Your task to perform on an android device: allow notifications from all sites in the chrome app Image 0: 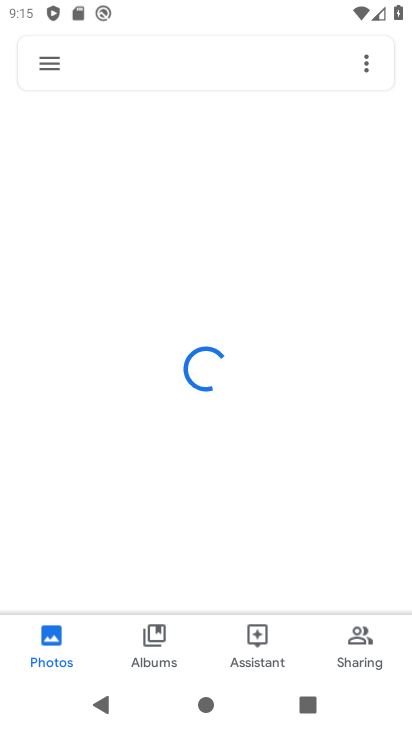
Step 0: press home button
Your task to perform on an android device: allow notifications from all sites in the chrome app Image 1: 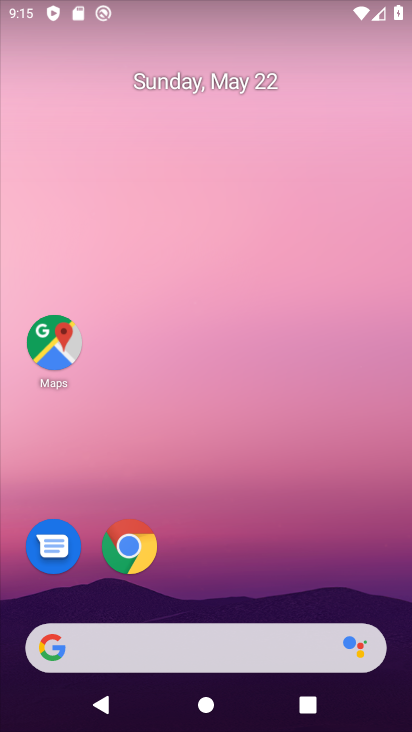
Step 1: click (159, 558)
Your task to perform on an android device: allow notifications from all sites in the chrome app Image 2: 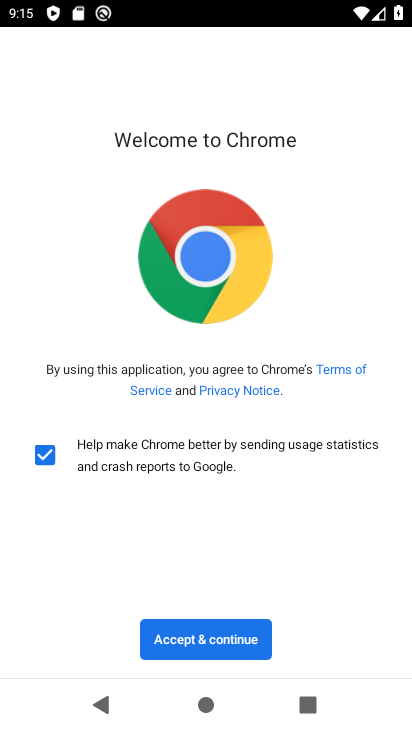
Step 2: click (218, 629)
Your task to perform on an android device: allow notifications from all sites in the chrome app Image 3: 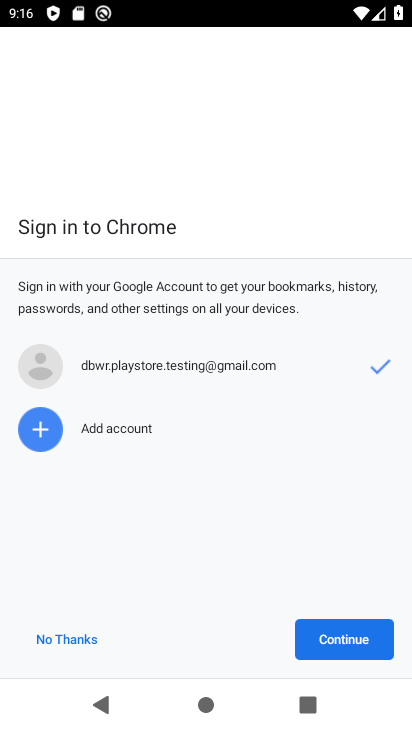
Step 3: click (347, 646)
Your task to perform on an android device: allow notifications from all sites in the chrome app Image 4: 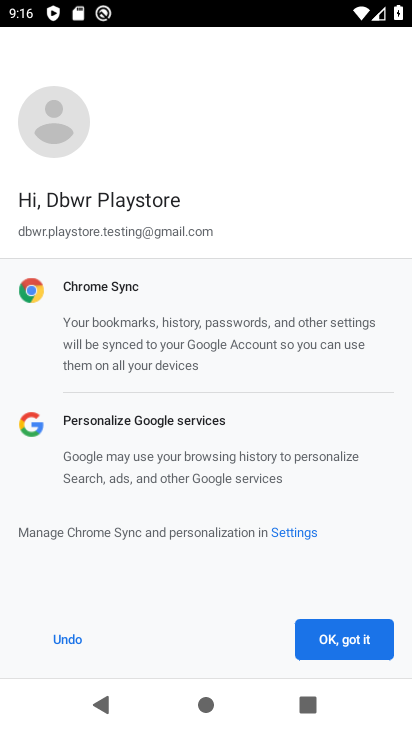
Step 4: click (323, 641)
Your task to perform on an android device: allow notifications from all sites in the chrome app Image 5: 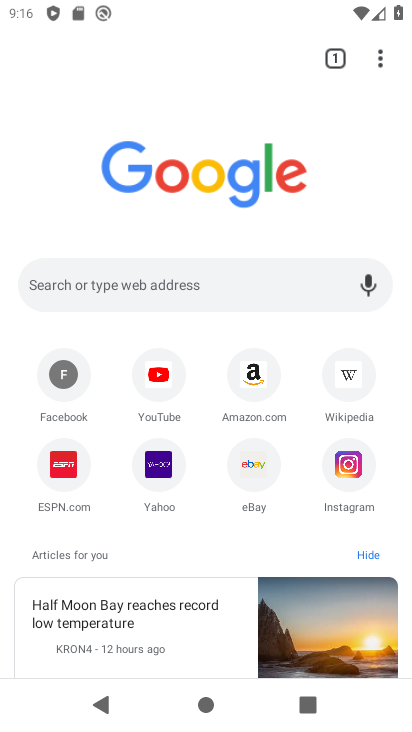
Step 5: drag from (378, 57) to (217, 502)
Your task to perform on an android device: allow notifications from all sites in the chrome app Image 6: 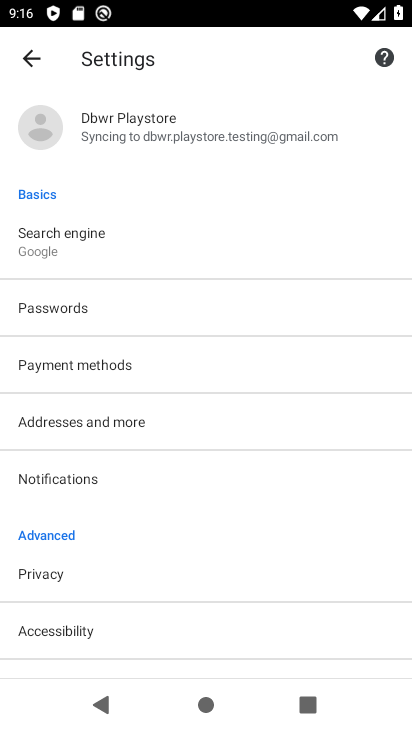
Step 6: drag from (101, 645) to (143, 148)
Your task to perform on an android device: allow notifications from all sites in the chrome app Image 7: 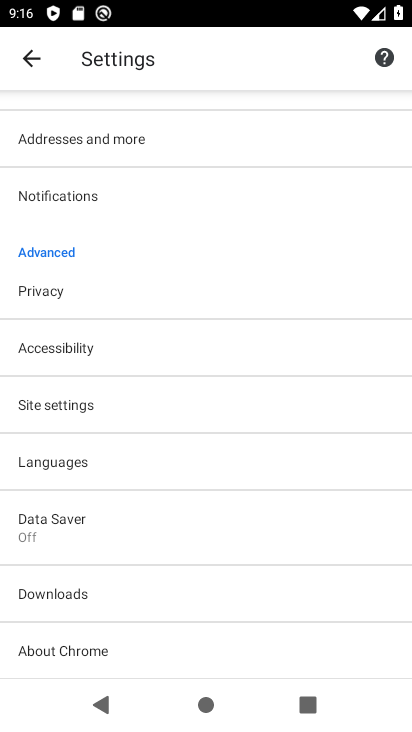
Step 7: click (80, 414)
Your task to perform on an android device: allow notifications from all sites in the chrome app Image 8: 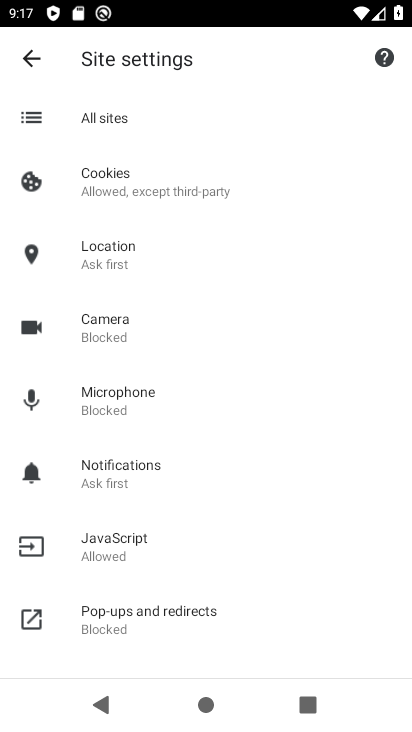
Step 8: click (155, 471)
Your task to perform on an android device: allow notifications from all sites in the chrome app Image 9: 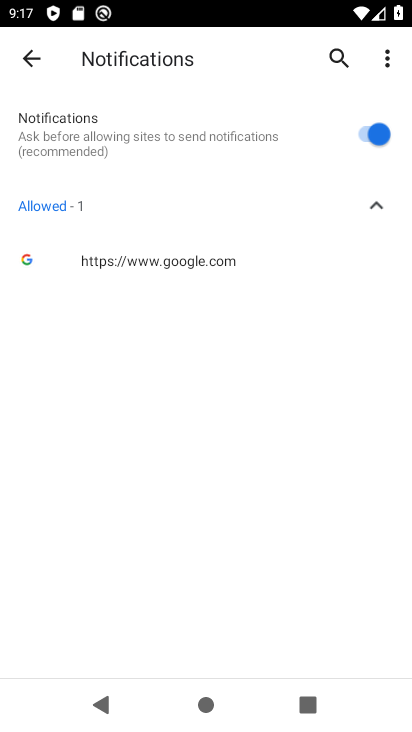
Step 9: task complete